Your task to perform on an android device: toggle notification dots Image 0: 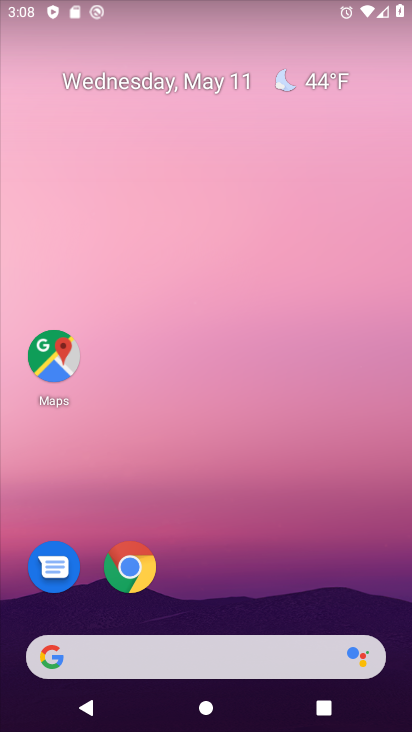
Step 0: drag from (241, 499) to (225, 10)
Your task to perform on an android device: toggle notification dots Image 1: 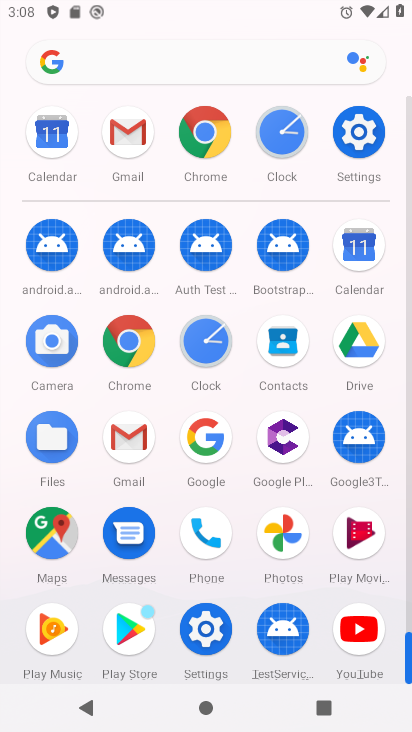
Step 1: click (207, 626)
Your task to perform on an android device: toggle notification dots Image 2: 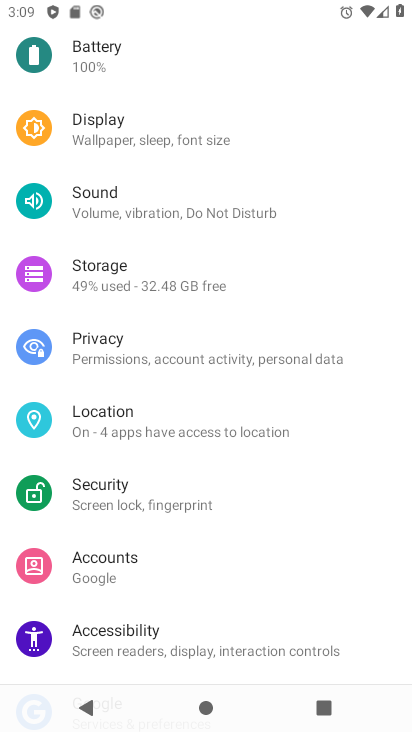
Step 2: drag from (178, 115) to (190, 442)
Your task to perform on an android device: toggle notification dots Image 3: 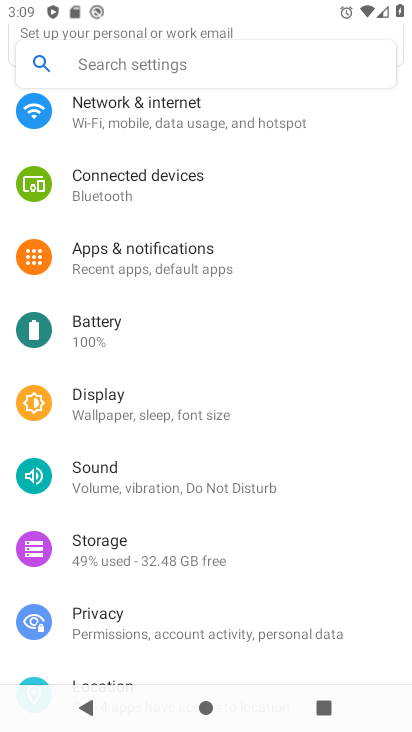
Step 3: drag from (263, 182) to (258, 448)
Your task to perform on an android device: toggle notification dots Image 4: 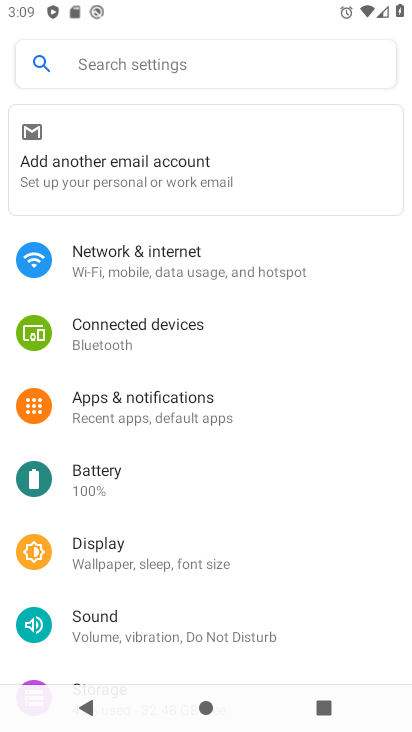
Step 4: click (162, 412)
Your task to perform on an android device: toggle notification dots Image 5: 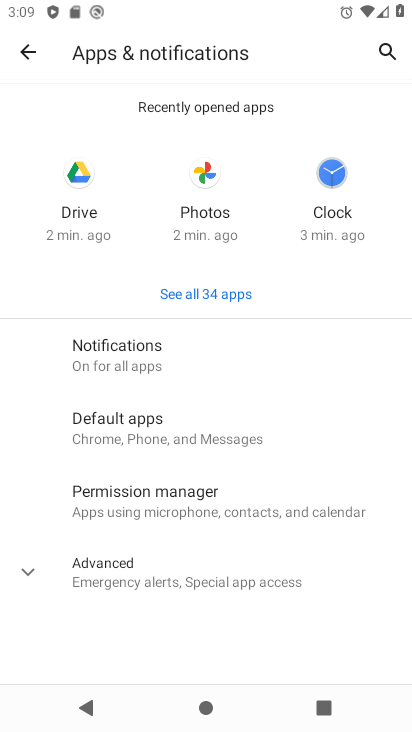
Step 5: click (38, 569)
Your task to perform on an android device: toggle notification dots Image 6: 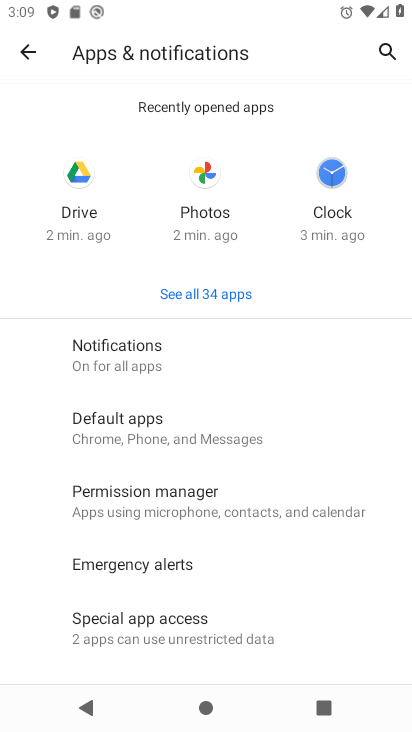
Step 6: click (202, 333)
Your task to perform on an android device: toggle notification dots Image 7: 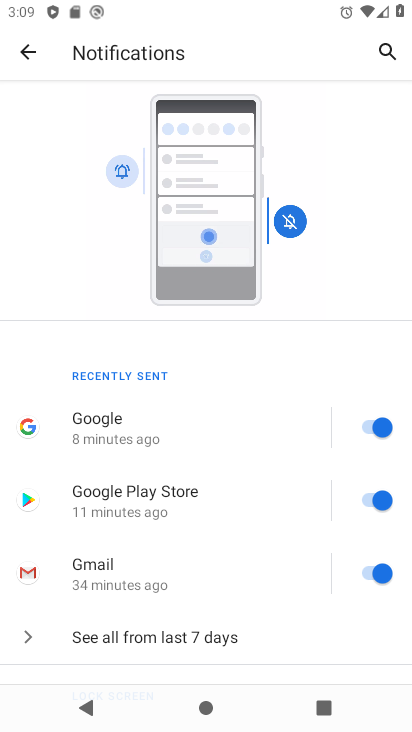
Step 7: drag from (241, 667) to (242, 268)
Your task to perform on an android device: toggle notification dots Image 8: 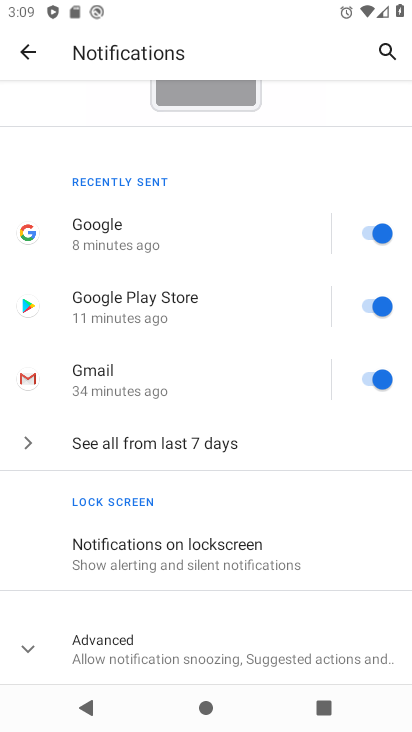
Step 8: drag from (184, 576) to (184, 240)
Your task to perform on an android device: toggle notification dots Image 9: 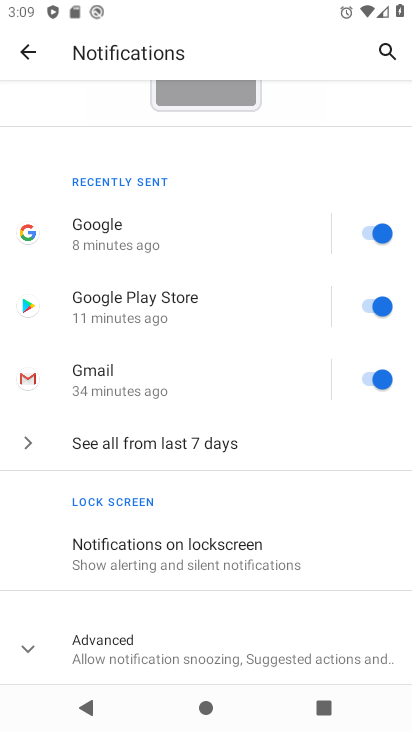
Step 9: drag from (161, 604) to (181, 336)
Your task to perform on an android device: toggle notification dots Image 10: 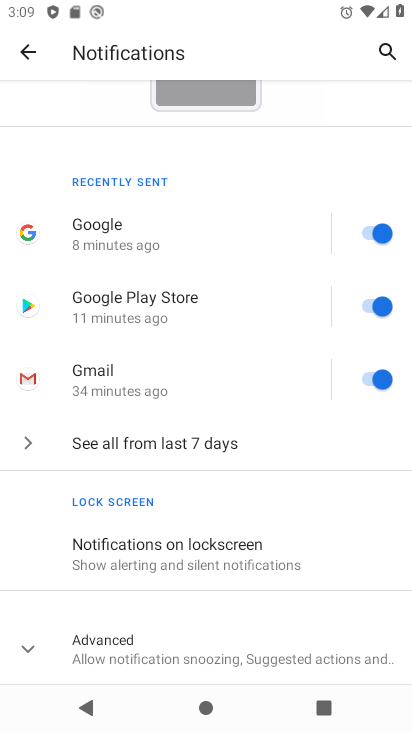
Step 10: click (108, 648)
Your task to perform on an android device: toggle notification dots Image 11: 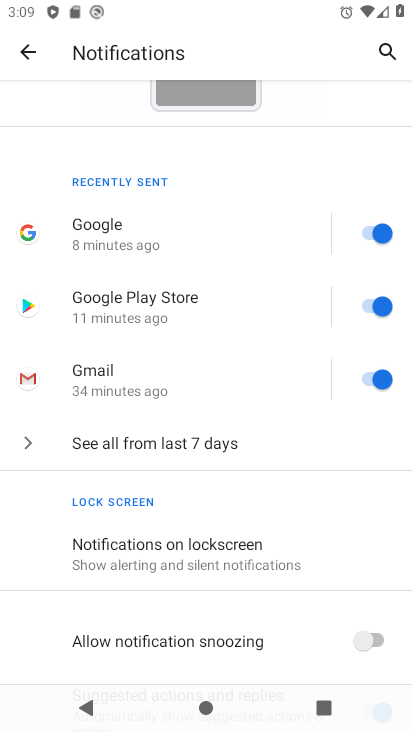
Step 11: drag from (174, 614) to (208, 298)
Your task to perform on an android device: toggle notification dots Image 12: 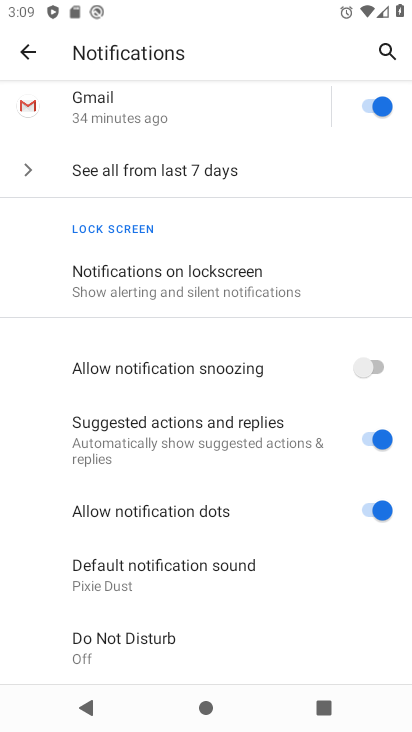
Step 12: drag from (208, 594) to (215, 275)
Your task to perform on an android device: toggle notification dots Image 13: 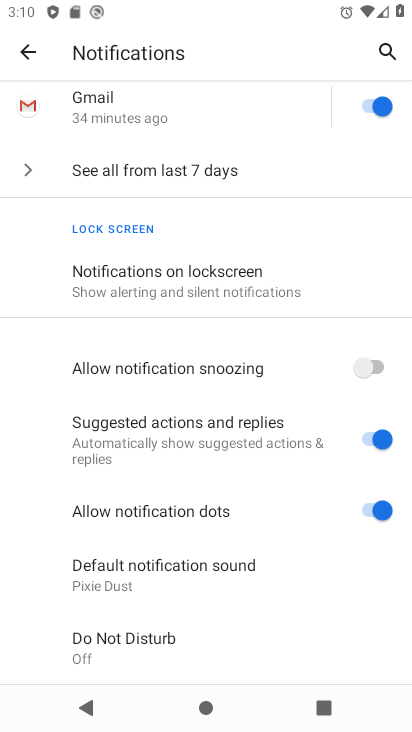
Step 13: click (373, 503)
Your task to perform on an android device: toggle notification dots Image 14: 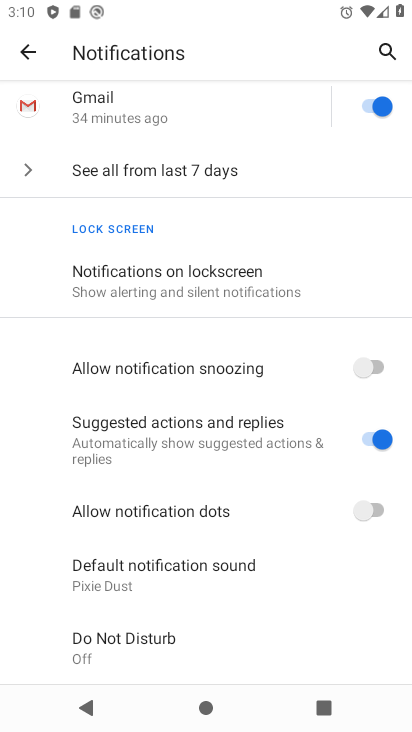
Step 14: task complete